Your task to perform on an android device: Go to Wikipedia Image 0: 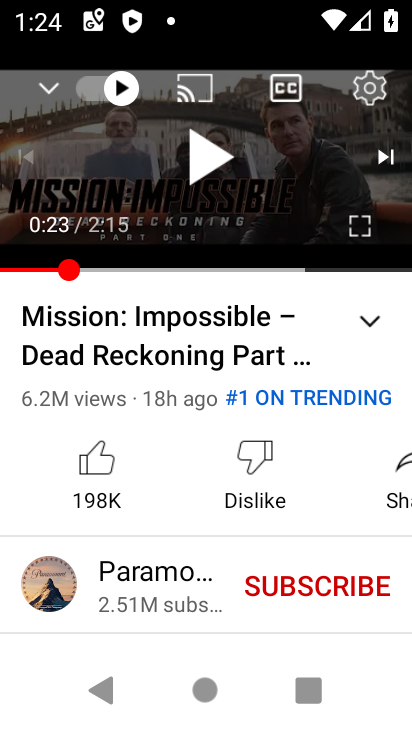
Step 0: press home button
Your task to perform on an android device: Go to Wikipedia Image 1: 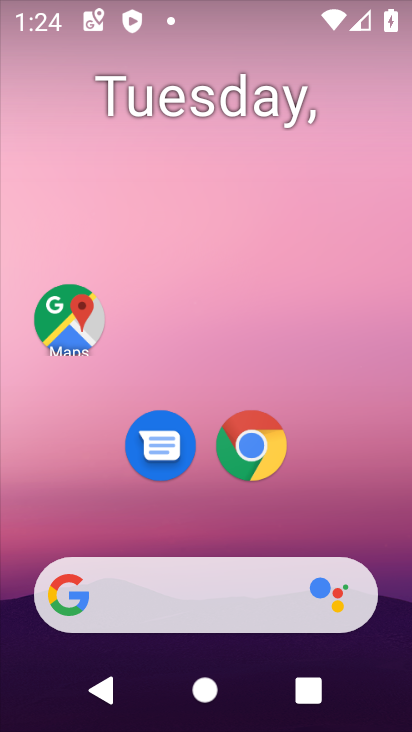
Step 1: drag from (305, 509) to (307, 112)
Your task to perform on an android device: Go to Wikipedia Image 2: 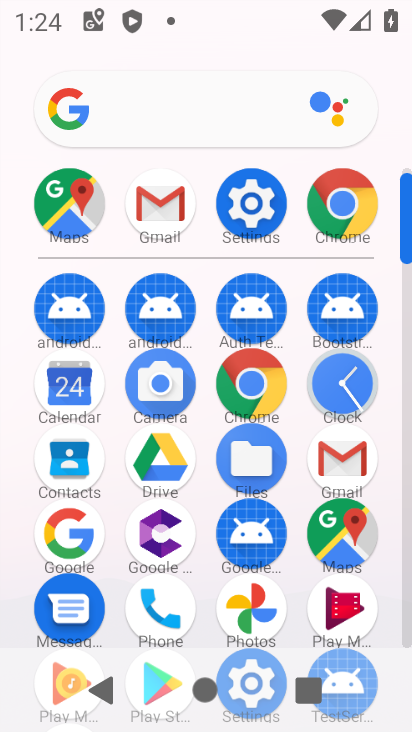
Step 2: click (338, 211)
Your task to perform on an android device: Go to Wikipedia Image 3: 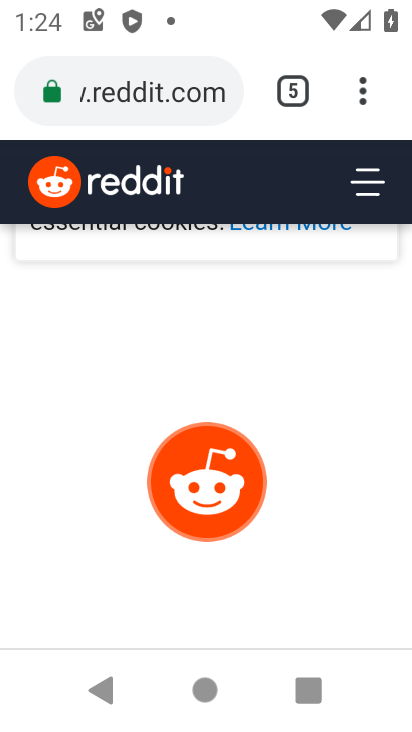
Step 3: click (178, 102)
Your task to perform on an android device: Go to Wikipedia Image 4: 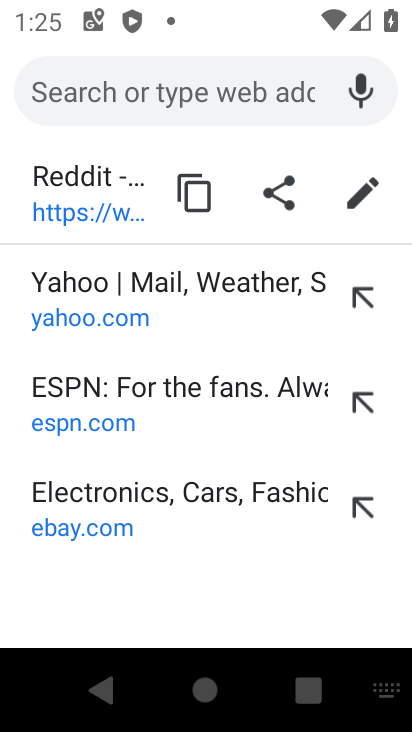
Step 4: type "wikipedia"
Your task to perform on an android device: Go to Wikipedia Image 5: 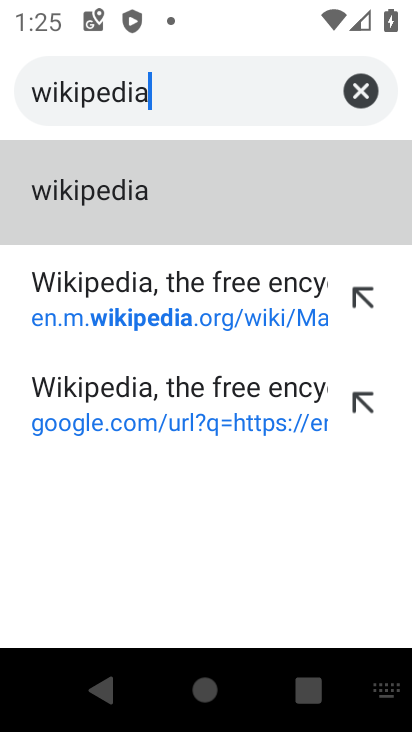
Step 5: click (121, 279)
Your task to perform on an android device: Go to Wikipedia Image 6: 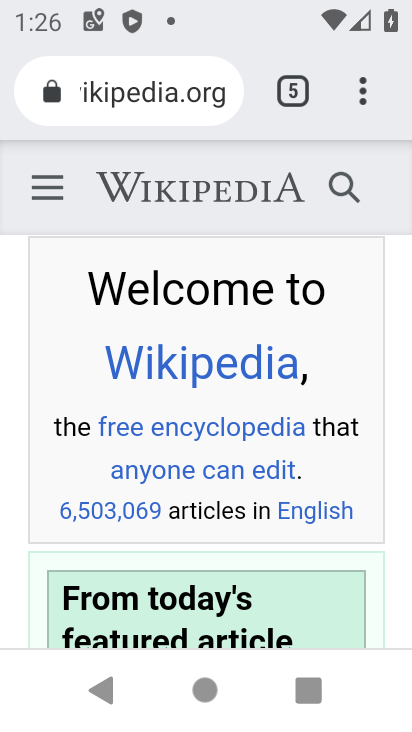
Step 6: task complete